Your task to perform on an android device: Open Maps and search for coffee Image 0: 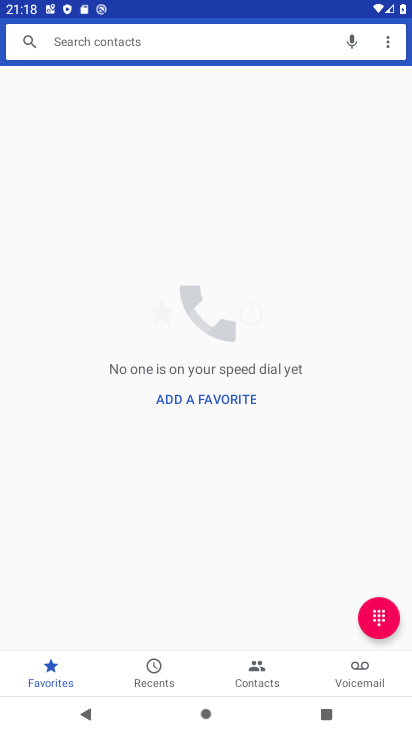
Step 0: press home button
Your task to perform on an android device: Open Maps and search for coffee Image 1: 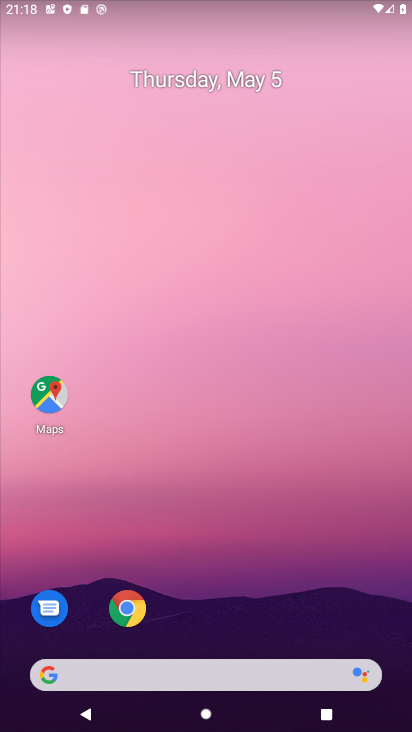
Step 1: drag from (273, 599) to (273, 2)
Your task to perform on an android device: Open Maps and search for coffee Image 2: 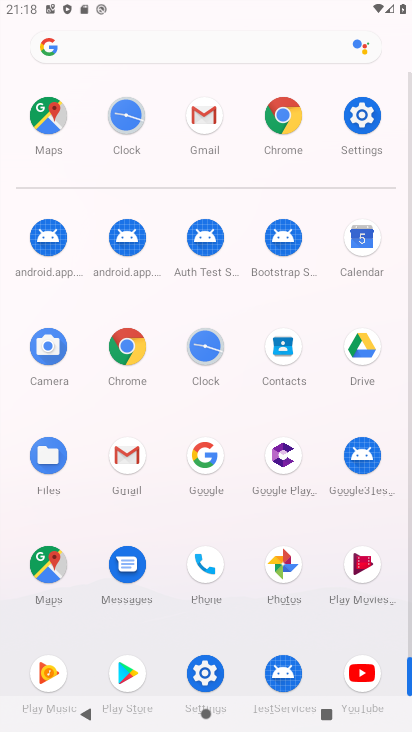
Step 2: click (26, 569)
Your task to perform on an android device: Open Maps and search for coffee Image 3: 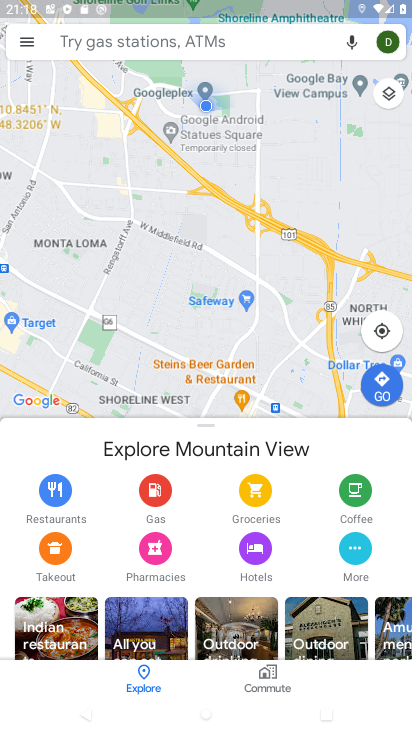
Step 3: click (285, 47)
Your task to perform on an android device: Open Maps and search for coffee Image 4: 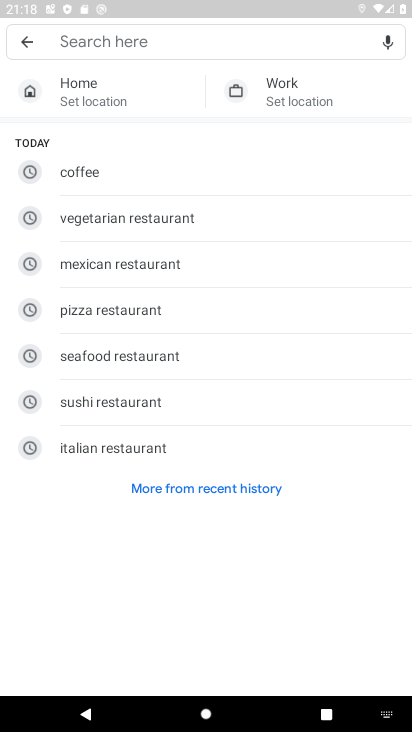
Step 4: type "coffee"
Your task to perform on an android device: Open Maps and search for coffee Image 5: 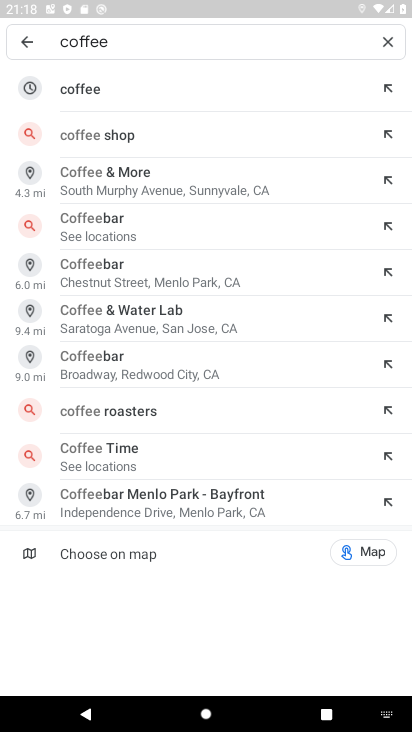
Step 5: click (180, 97)
Your task to perform on an android device: Open Maps and search for coffee Image 6: 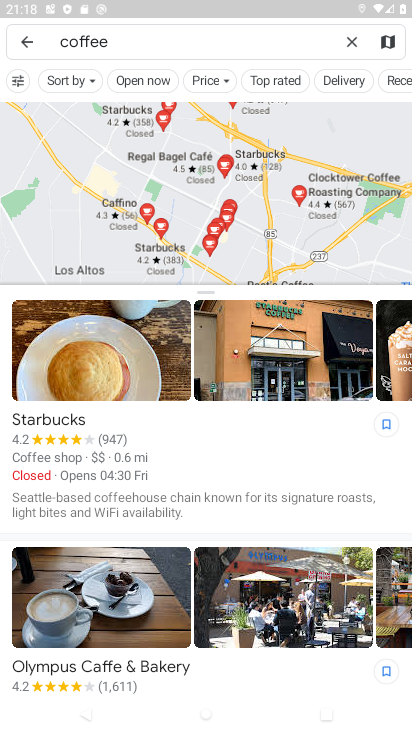
Step 6: task complete